Your task to perform on an android device: turn off airplane mode Image 0: 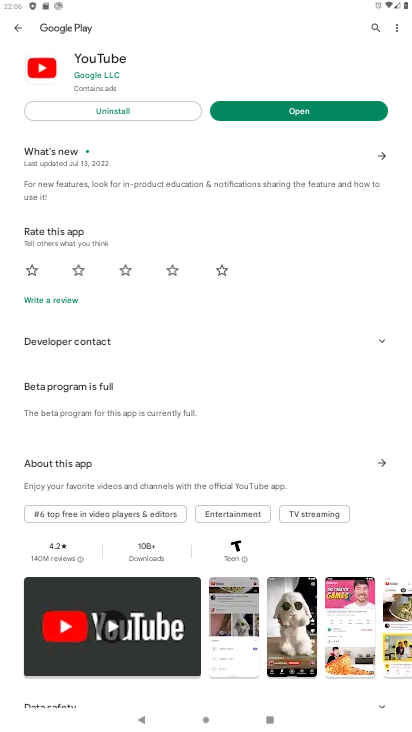
Step 0: press home button
Your task to perform on an android device: turn off airplane mode Image 1: 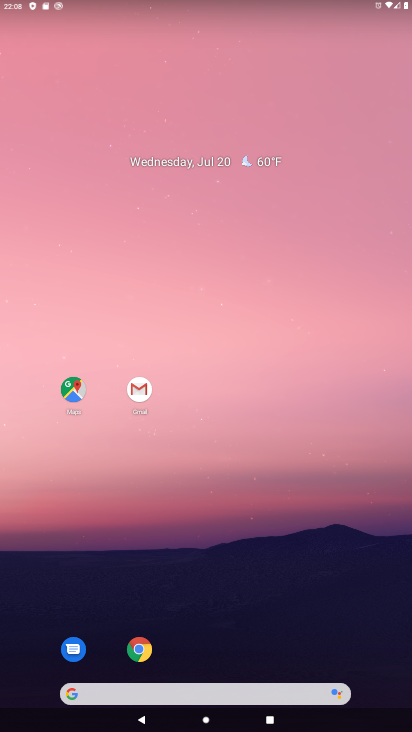
Step 1: drag from (361, 678) to (348, 7)
Your task to perform on an android device: turn off airplane mode Image 2: 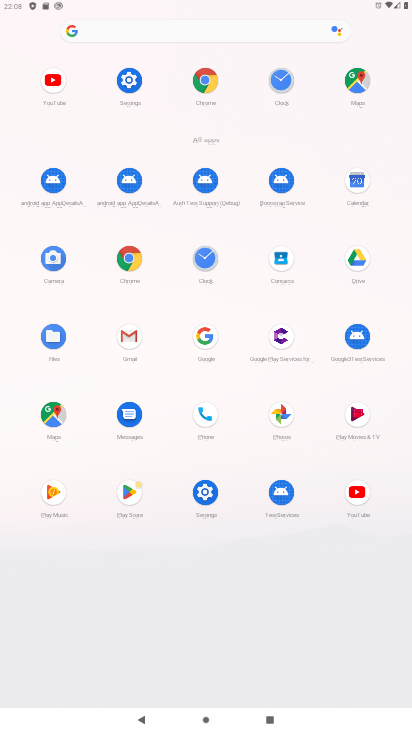
Step 2: click (132, 92)
Your task to perform on an android device: turn off airplane mode Image 3: 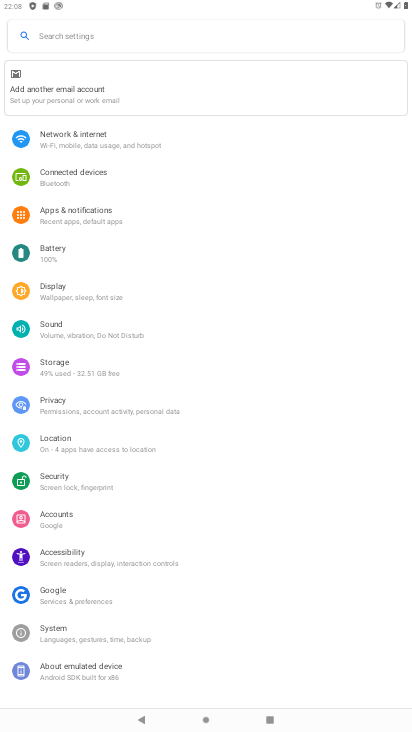
Step 3: click (52, 133)
Your task to perform on an android device: turn off airplane mode Image 4: 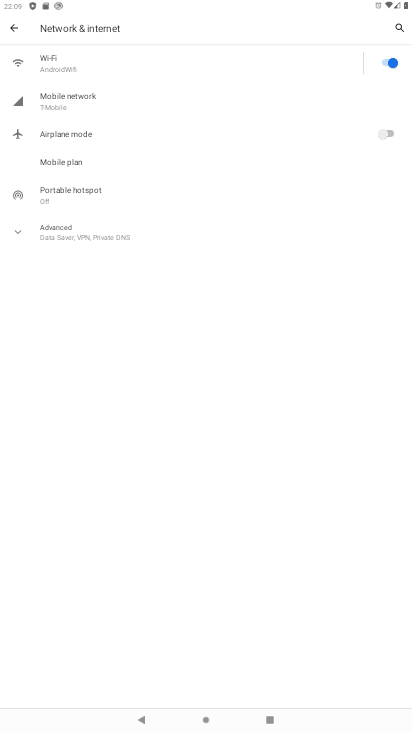
Step 4: click (386, 138)
Your task to perform on an android device: turn off airplane mode Image 5: 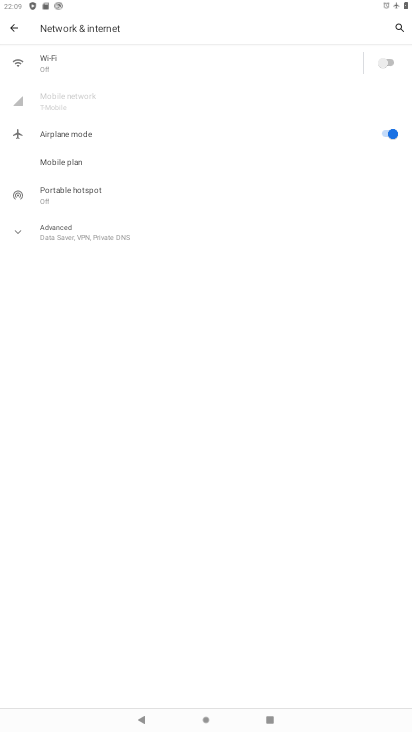
Step 5: task complete